Your task to perform on an android device: allow notifications from all sites in the chrome app Image 0: 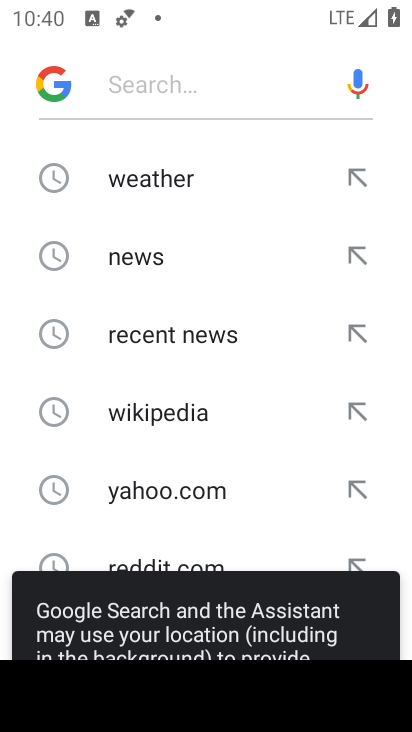
Step 0: press home button
Your task to perform on an android device: allow notifications from all sites in the chrome app Image 1: 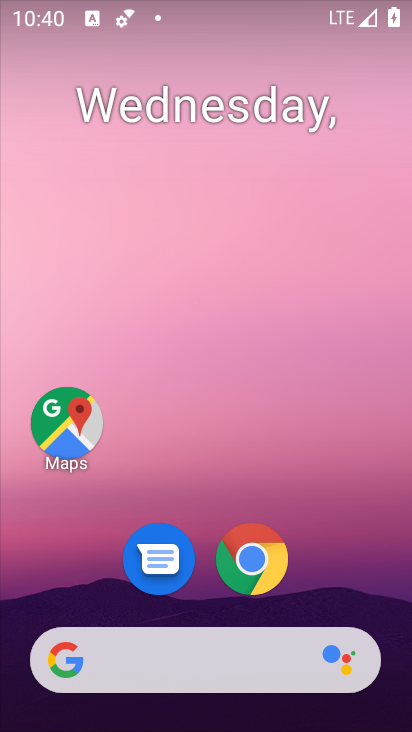
Step 1: drag from (298, 706) to (292, 214)
Your task to perform on an android device: allow notifications from all sites in the chrome app Image 2: 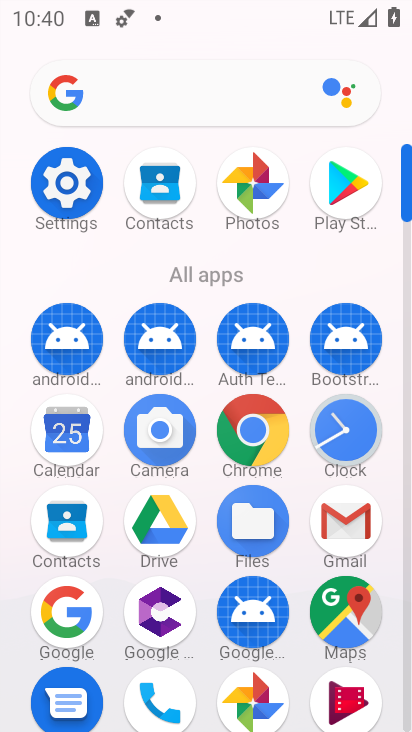
Step 2: click (244, 457)
Your task to perform on an android device: allow notifications from all sites in the chrome app Image 3: 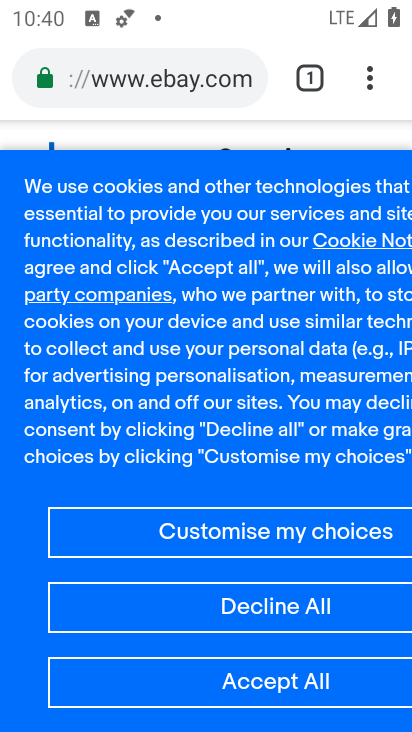
Step 3: click (365, 70)
Your task to perform on an android device: allow notifications from all sites in the chrome app Image 4: 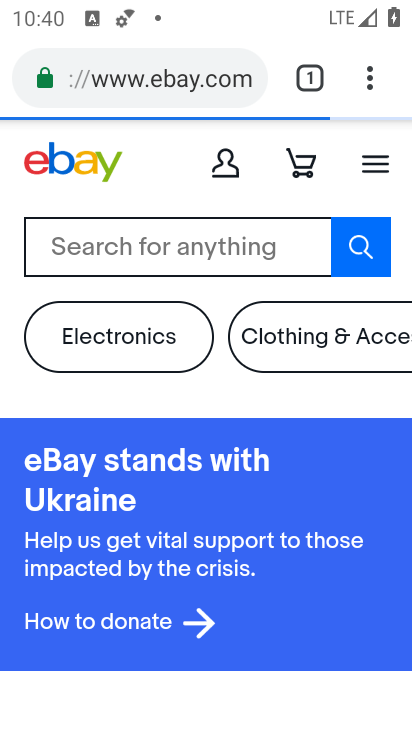
Step 4: click (381, 85)
Your task to perform on an android device: allow notifications from all sites in the chrome app Image 5: 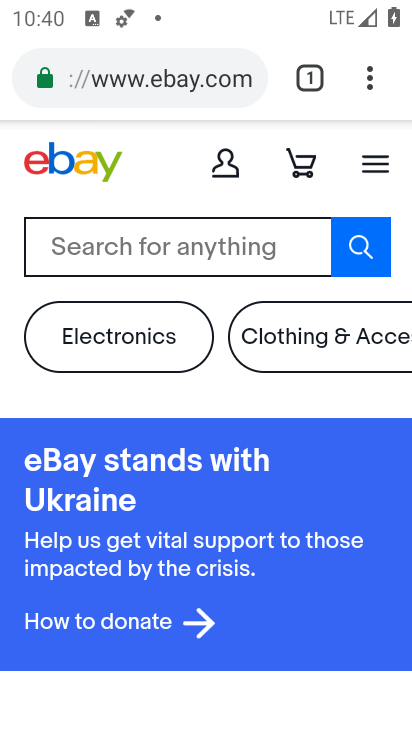
Step 5: click (382, 86)
Your task to perform on an android device: allow notifications from all sites in the chrome app Image 6: 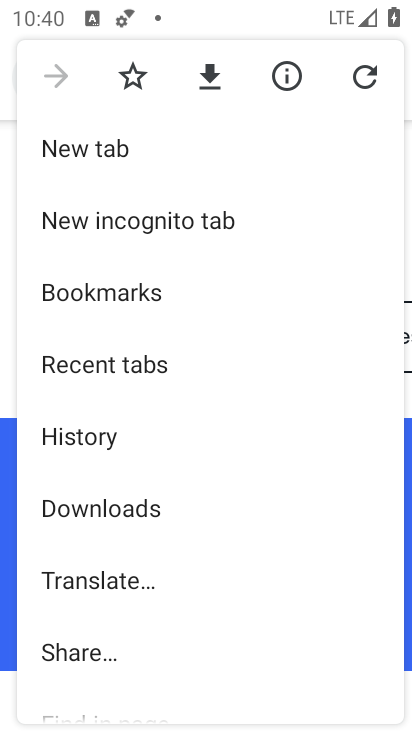
Step 6: drag from (218, 564) to (253, 128)
Your task to perform on an android device: allow notifications from all sites in the chrome app Image 7: 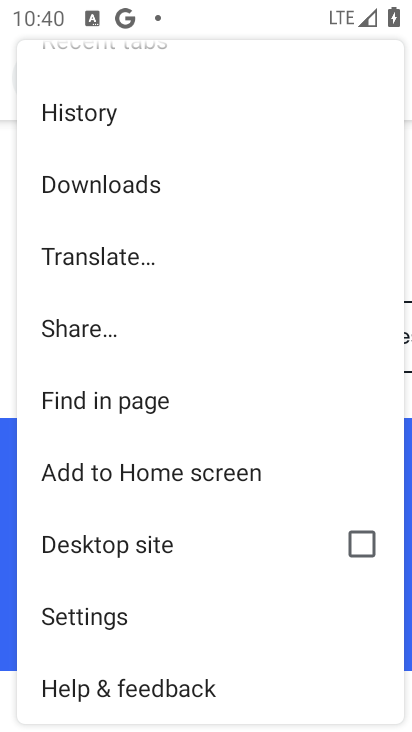
Step 7: click (139, 619)
Your task to perform on an android device: allow notifications from all sites in the chrome app Image 8: 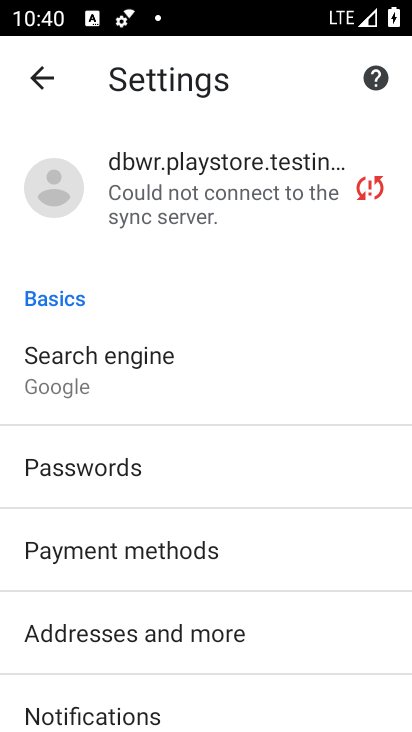
Step 8: drag from (187, 648) to (133, 301)
Your task to perform on an android device: allow notifications from all sites in the chrome app Image 9: 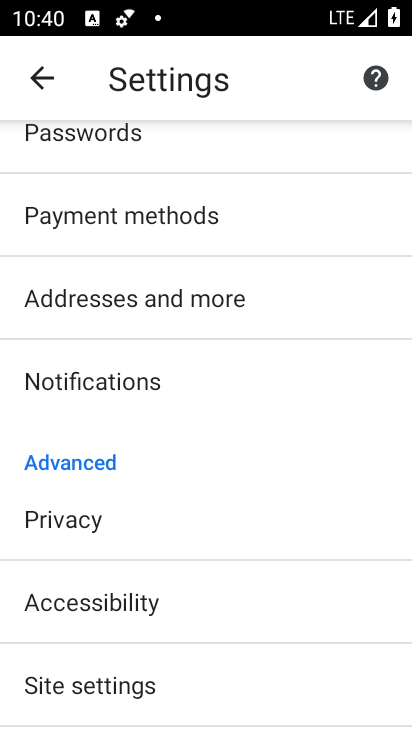
Step 9: click (90, 387)
Your task to perform on an android device: allow notifications from all sites in the chrome app Image 10: 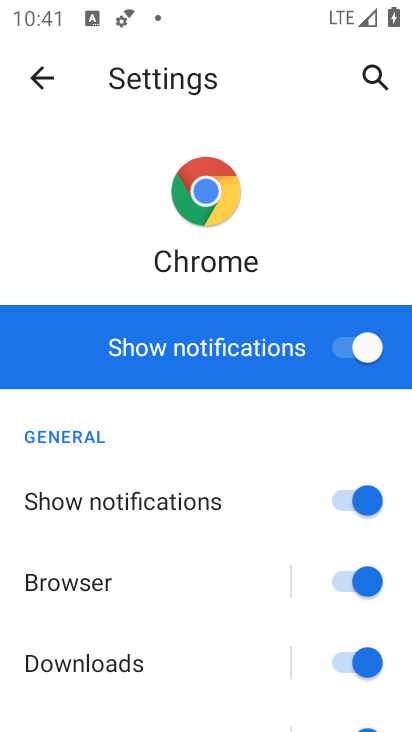
Step 10: task complete